Your task to perform on an android device: Open Google Chrome Image 0: 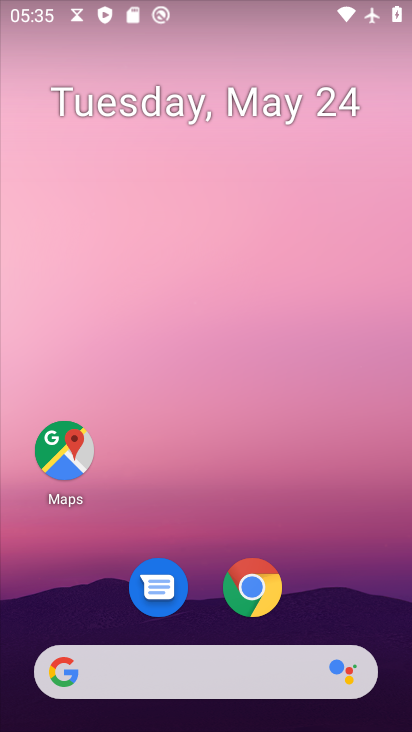
Step 0: click (272, 594)
Your task to perform on an android device: Open Google Chrome Image 1: 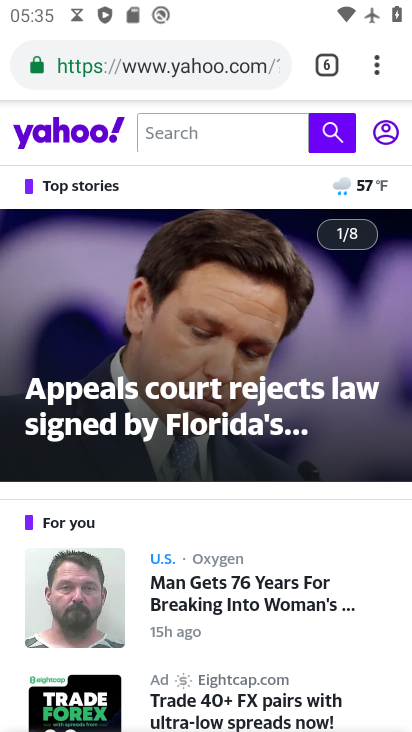
Step 1: task complete